Your task to perform on an android device: Show me popular videos on Youtube Image 0: 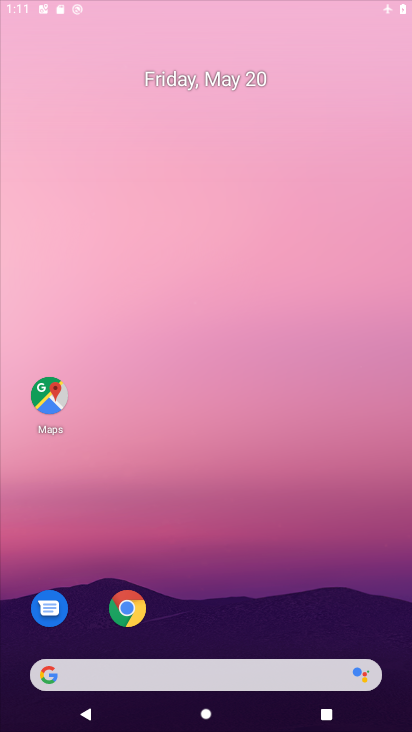
Step 0: click (279, 162)
Your task to perform on an android device: Show me popular videos on Youtube Image 1: 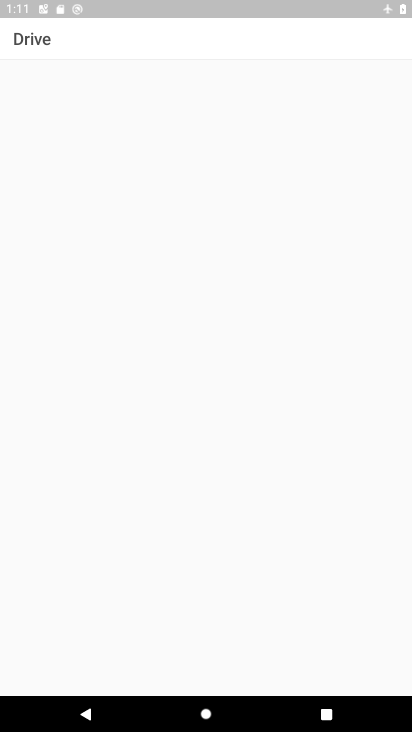
Step 1: press home button
Your task to perform on an android device: Show me popular videos on Youtube Image 2: 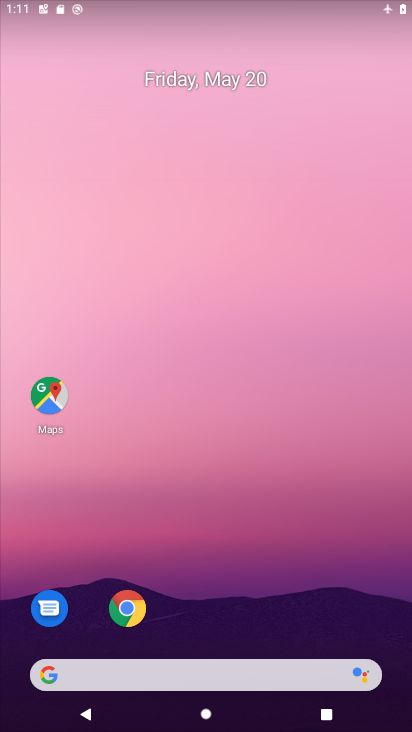
Step 2: drag from (286, 585) to (277, 151)
Your task to perform on an android device: Show me popular videos on Youtube Image 3: 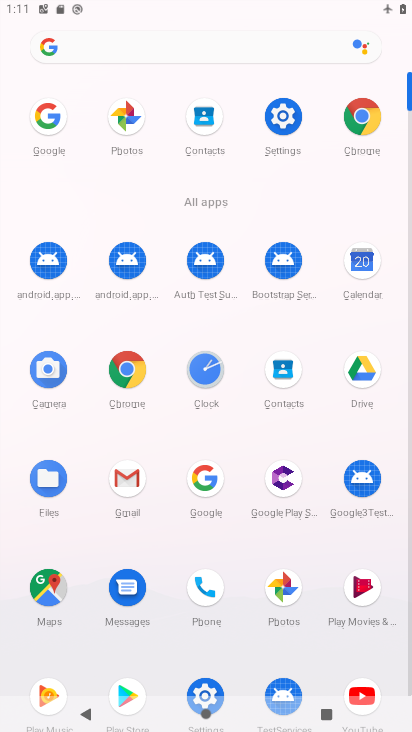
Step 3: drag from (325, 635) to (339, 377)
Your task to perform on an android device: Show me popular videos on Youtube Image 4: 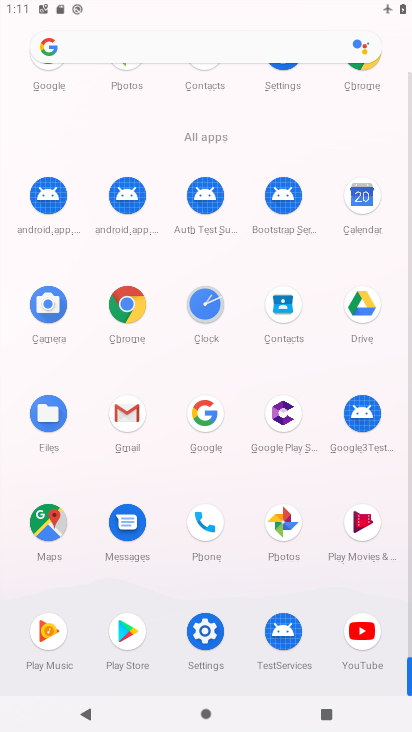
Step 4: click (345, 616)
Your task to perform on an android device: Show me popular videos on Youtube Image 5: 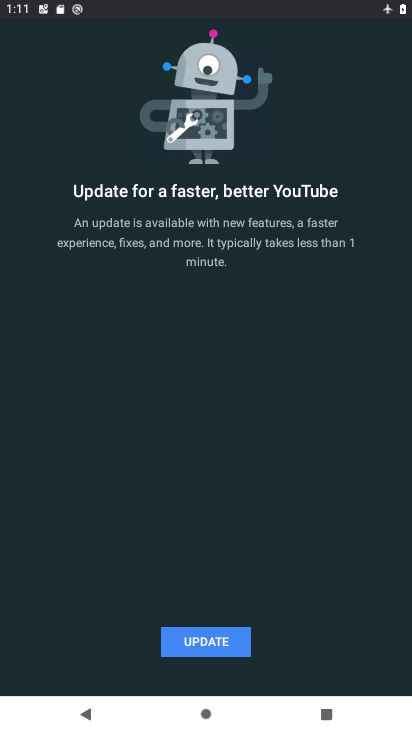
Step 5: click (236, 648)
Your task to perform on an android device: Show me popular videos on Youtube Image 6: 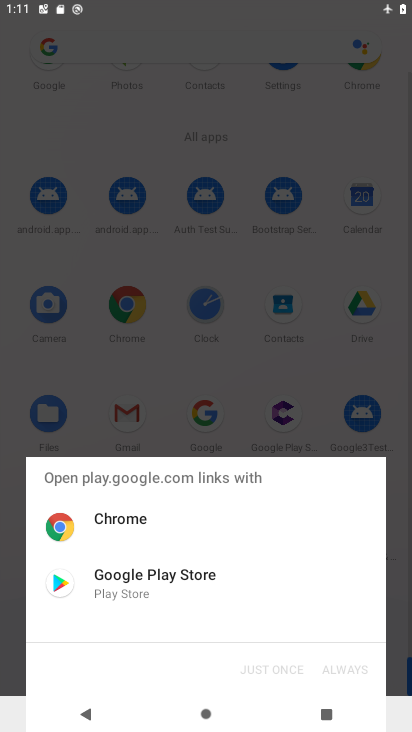
Step 6: click (189, 582)
Your task to perform on an android device: Show me popular videos on Youtube Image 7: 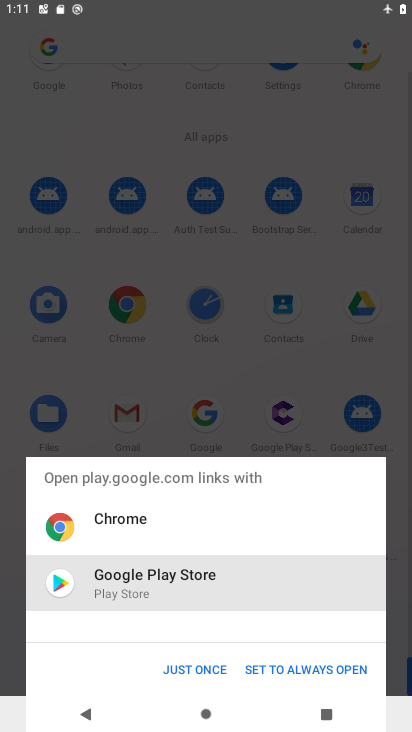
Step 7: click (218, 664)
Your task to perform on an android device: Show me popular videos on Youtube Image 8: 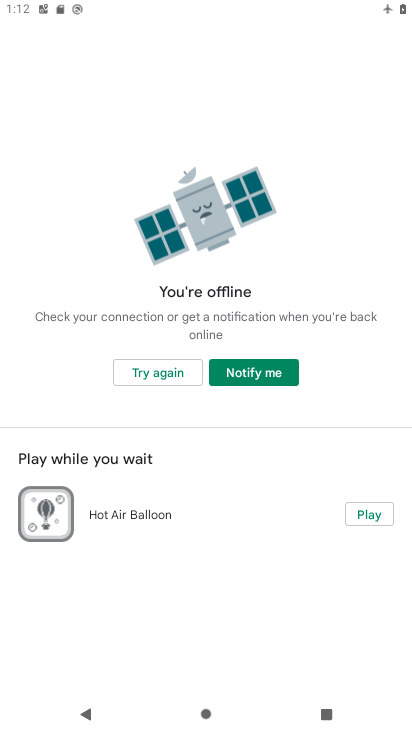
Step 8: task complete